Your task to perform on an android device: check battery use Image 0: 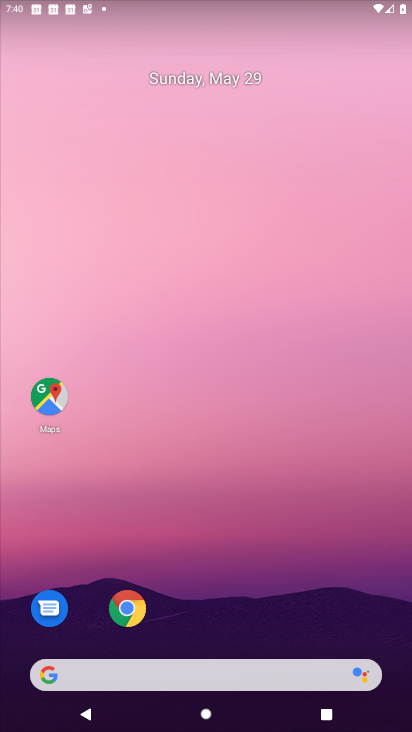
Step 0: drag from (251, 567) to (141, 121)
Your task to perform on an android device: check battery use Image 1: 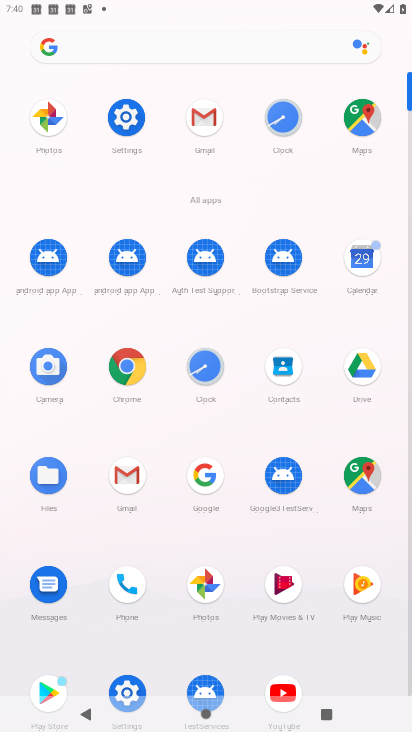
Step 1: click (122, 122)
Your task to perform on an android device: check battery use Image 2: 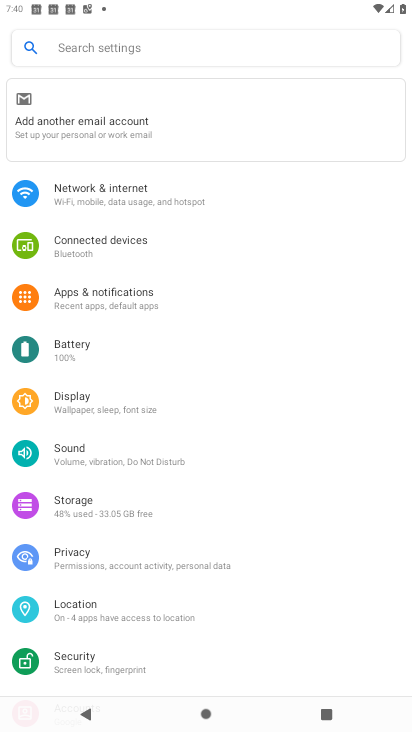
Step 2: click (73, 348)
Your task to perform on an android device: check battery use Image 3: 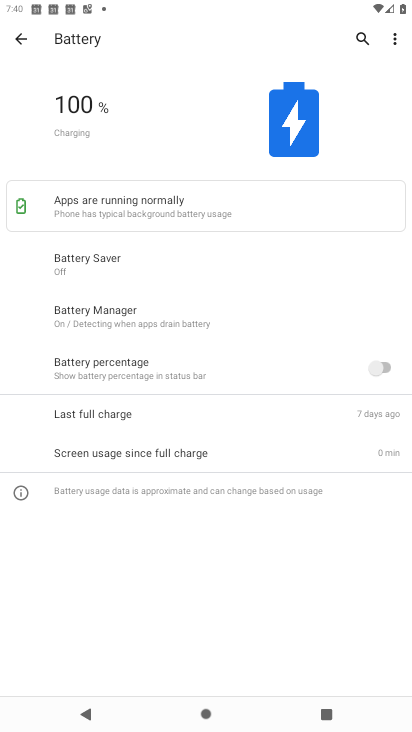
Step 3: task complete